Your task to perform on an android device: add a label to a message in the gmail app Image 0: 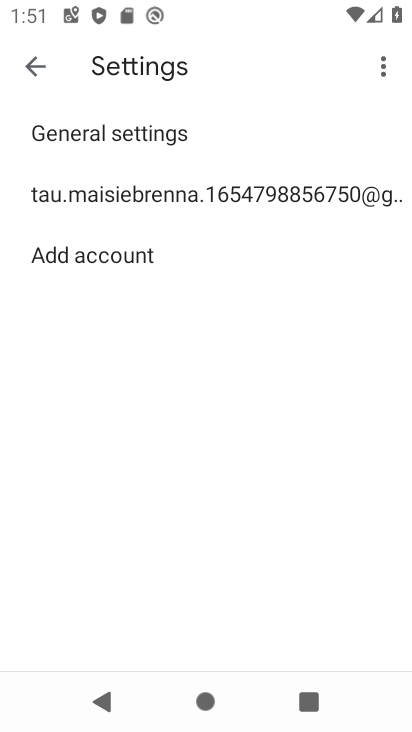
Step 0: press home button
Your task to perform on an android device: add a label to a message in the gmail app Image 1: 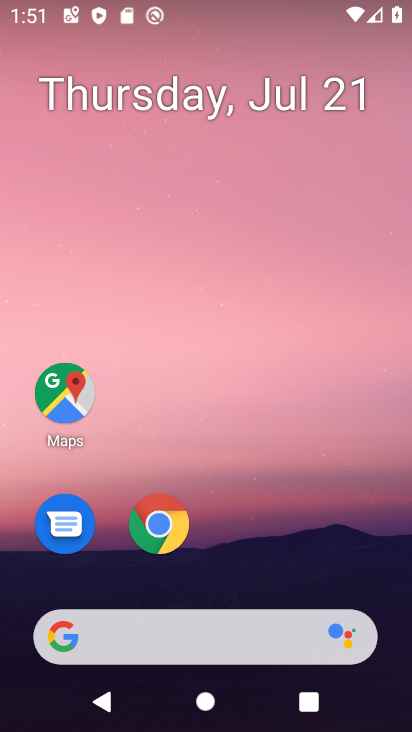
Step 1: drag from (290, 492) to (298, 91)
Your task to perform on an android device: add a label to a message in the gmail app Image 2: 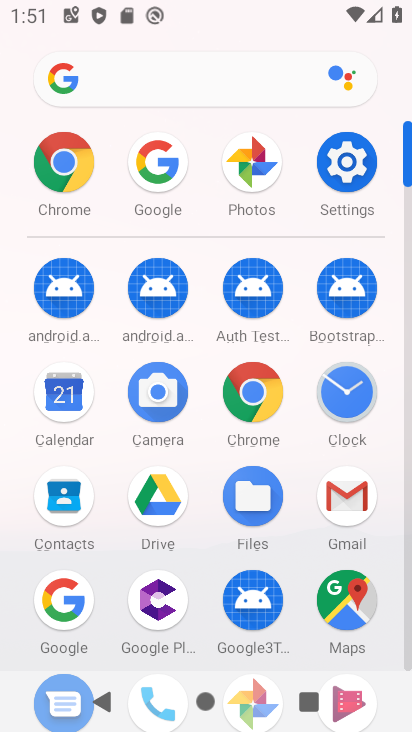
Step 2: click (338, 497)
Your task to perform on an android device: add a label to a message in the gmail app Image 3: 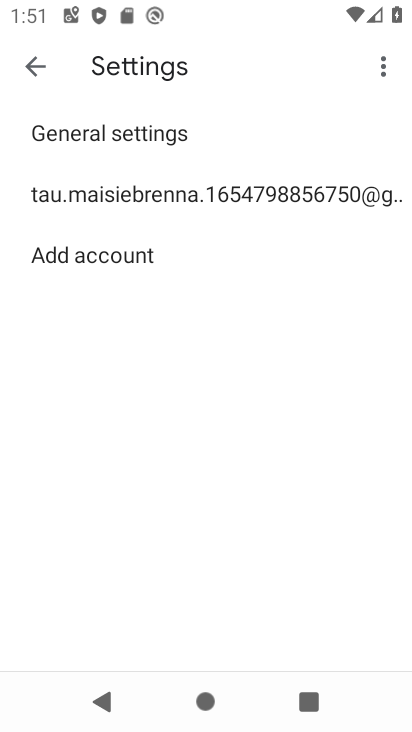
Step 3: click (43, 71)
Your task to perform on an android device: add a label to a message in the gmail app Image 4: 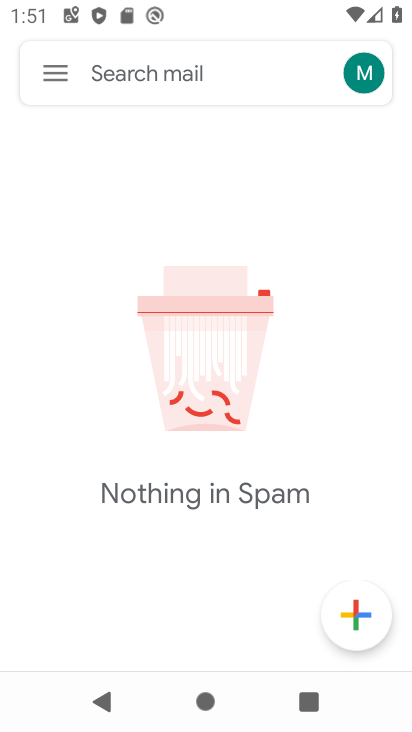
Step 4: click (60, 70)
Your task to perform on an android device: add a label to a message in the gmail app Image 5: 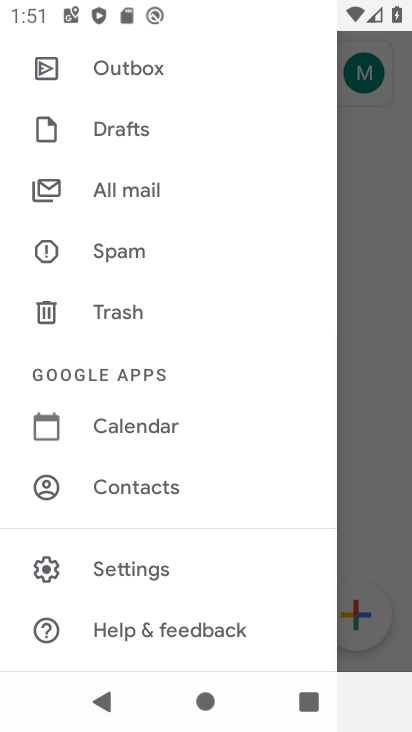
Step 5: click (122, 180)
Your task to perform on an android device: add a label to a message in the gmail app Image 6: 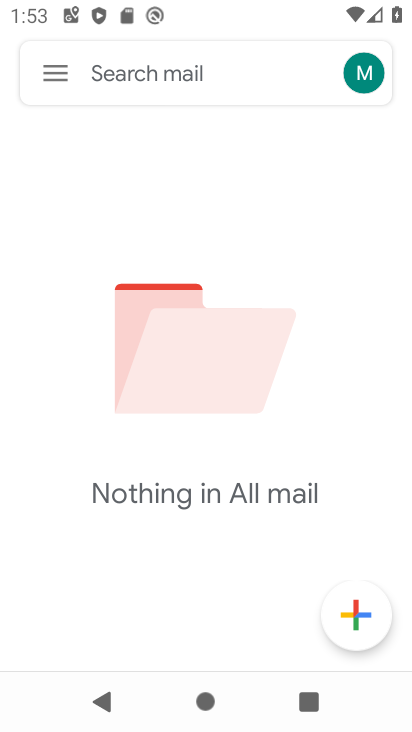
Step 6: task complete